Your task to perform on an android device: change the clock display to show seconds Image 0: 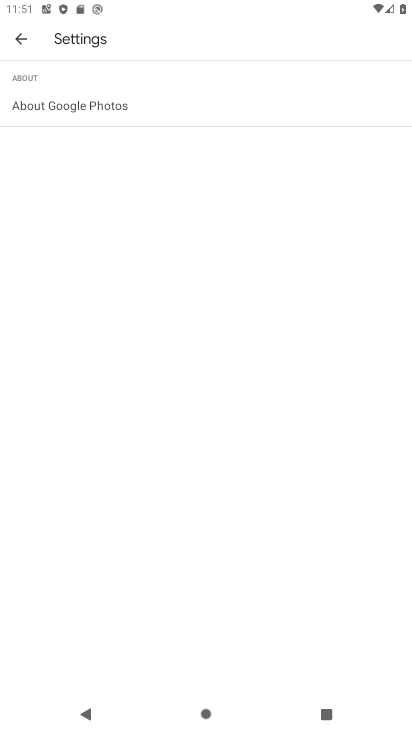
Step 0: press home button
Your task to perform on an android device: change the clock display to show seconds Image 1: 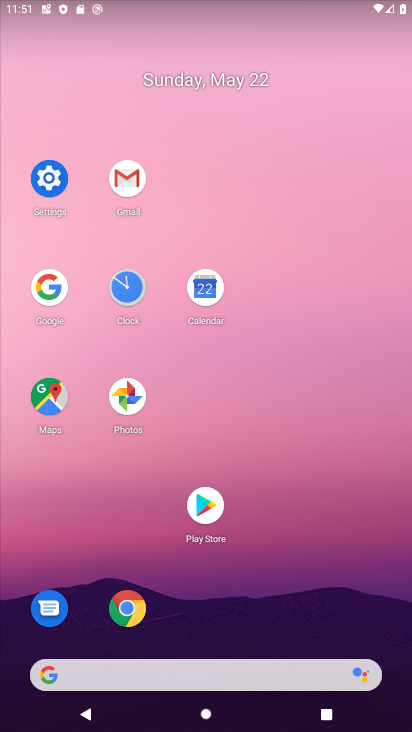
Step 1: click (128, 290)
Your task to perform on an android device: change the clock display to show seconds Image 2: 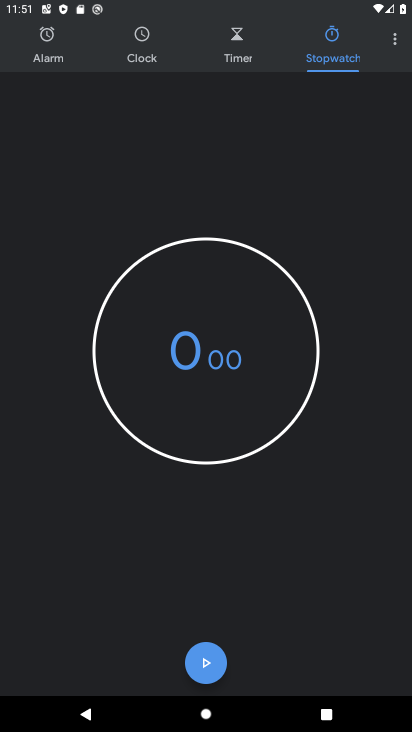
Step 2: click (387, 42)
Your task to perform on an android device: change the clock display to show seconds Image 3: 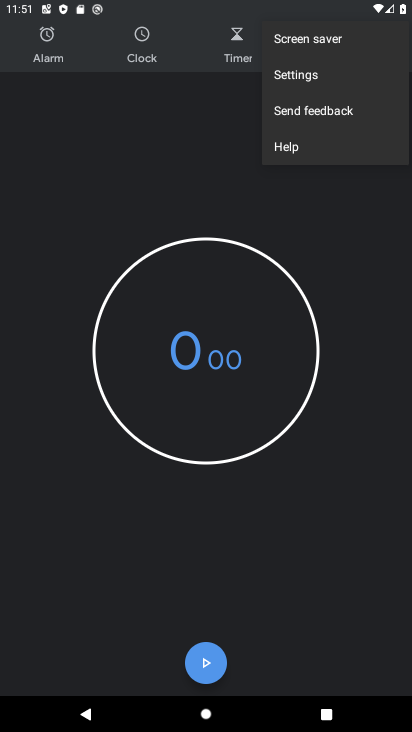
Step 3: click (297, 78)
Your task to perform on an android device: change the clock display to show seconds Image 4: 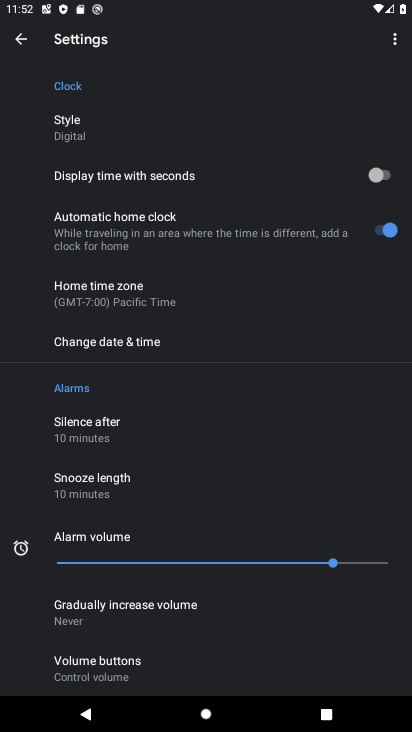
Step 4: click (375, 174)
Your task to perform on an android device: change the clock display to show seconds Image 5: 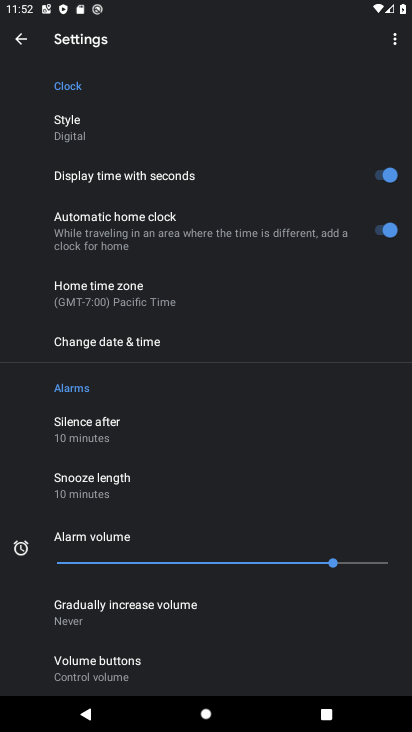
Step 5: task complete